Your task to perform on an android device: open sync settings in chrome Image 0: 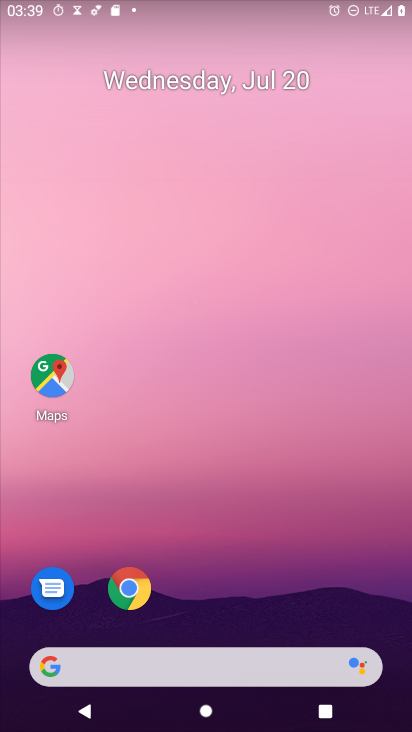
Step 0: click (156, 589)
Your task to perform on an android device: open sync settings in chrome Image 1: 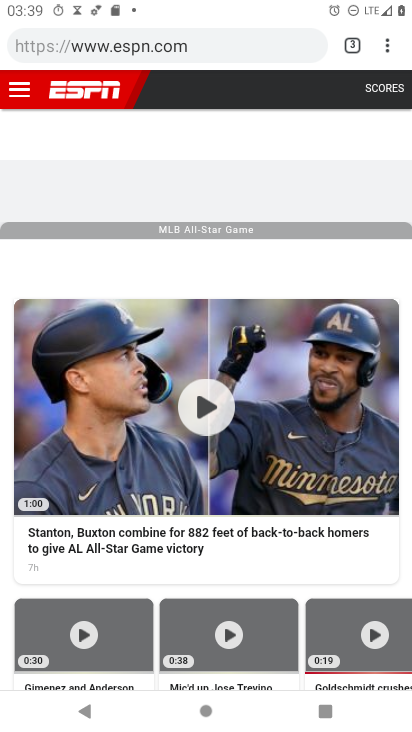
Step 1: click (385, 40)
Your task to perform on an android device: open sync settings in chrome Image 2: 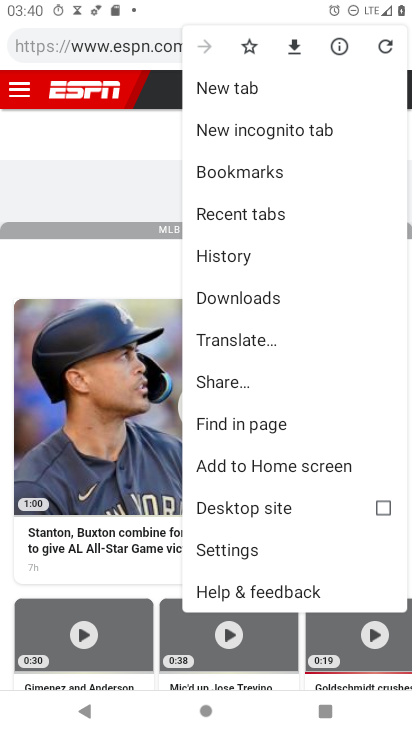
Step 2: click (218, 538)
Your task to perform on an android device: open sync settings in chrome Image 3: 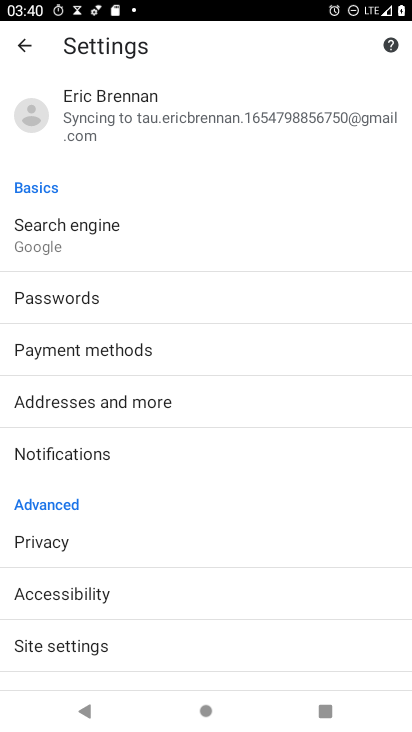
Step 3: drag from (218, 538) to (208, 459)
Your task to perform on an android device: open sync settings in chrome Image 4: 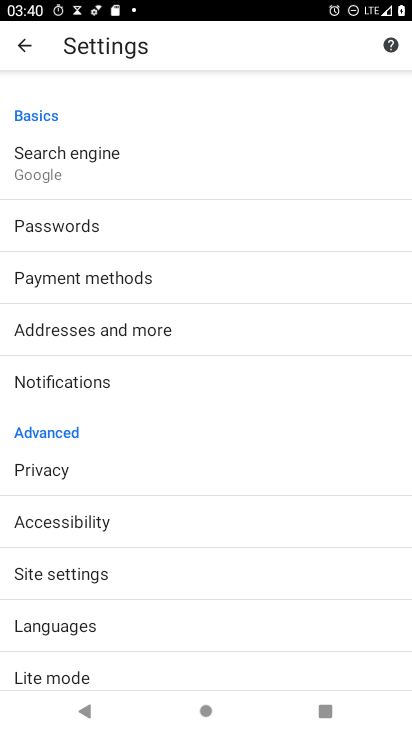
Step 4: click (36, 79)
Your task to perform on an android device: open sync settings in chrome Image 5: 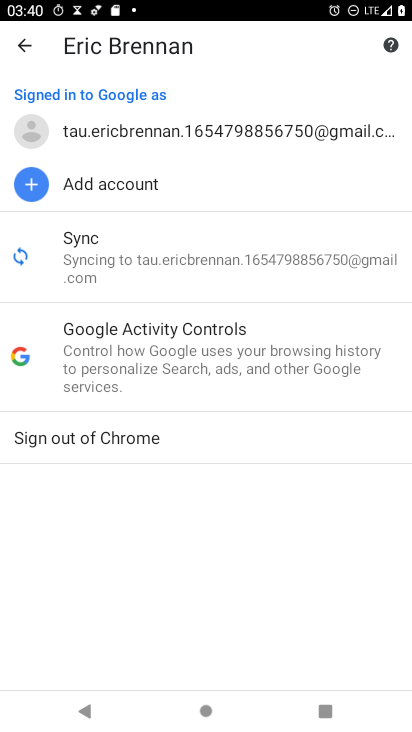
Step 5: click (89, 226)
Your task to perform on an android device: open sync settings in chrome Image 6: 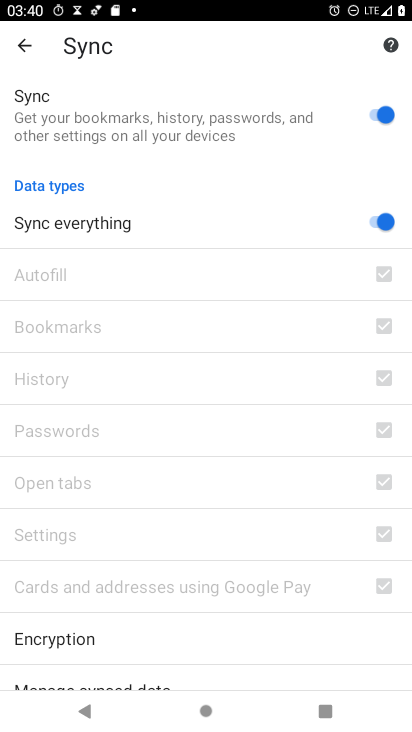
Step 6: task complete